Your task to perform on an android device: manage bookmarks in the chrome app Image 0: 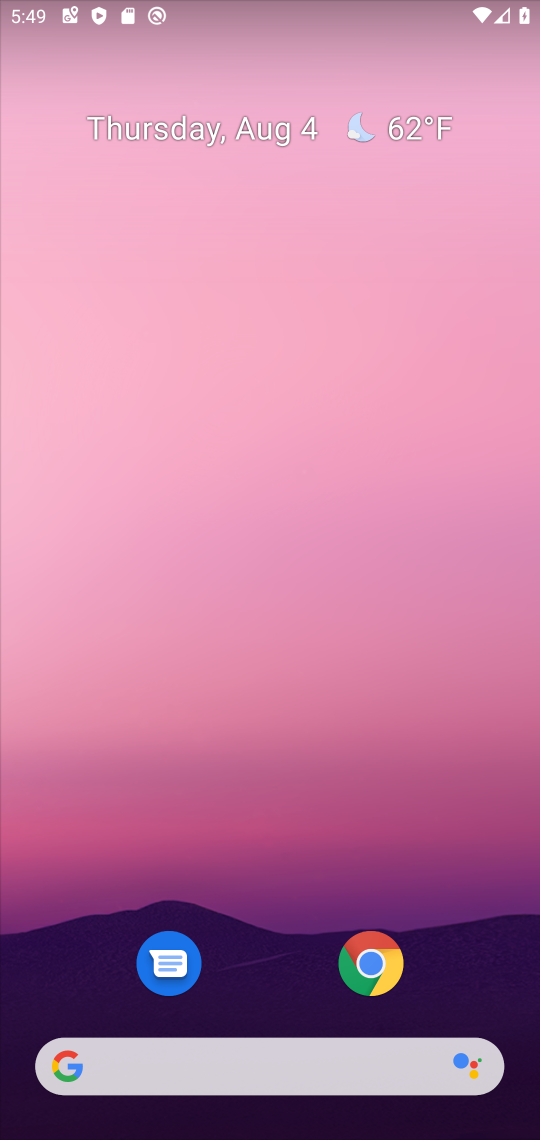
Step 0: click (372, 964)
Your task to perform on an android device: manage bookmarks in the chrome app Image 1: 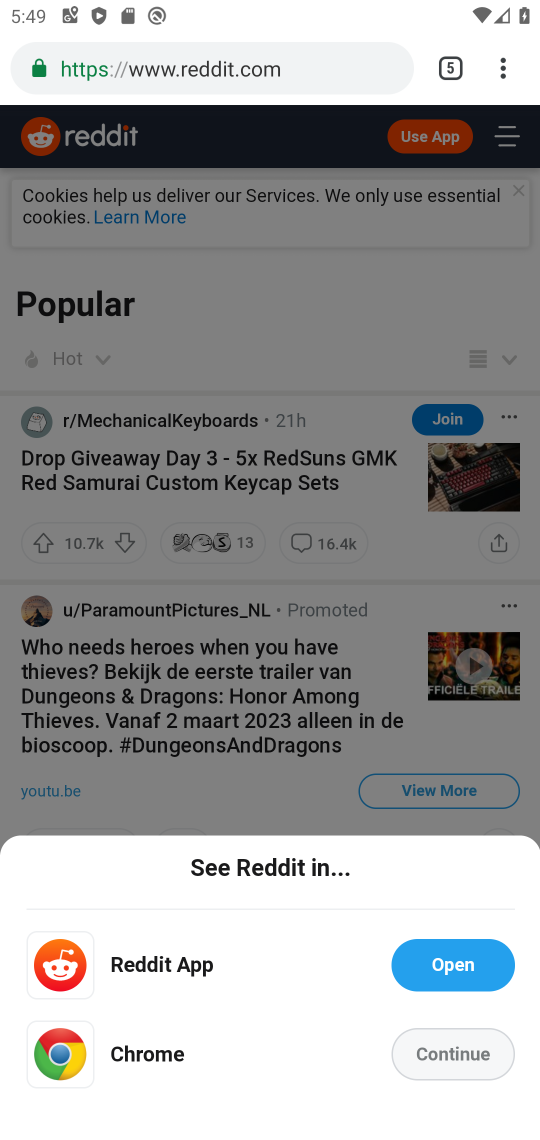
Step 1: click (510, 59)
Your task to perform on an android device: manage bookmarks in the chrome app Image 2: 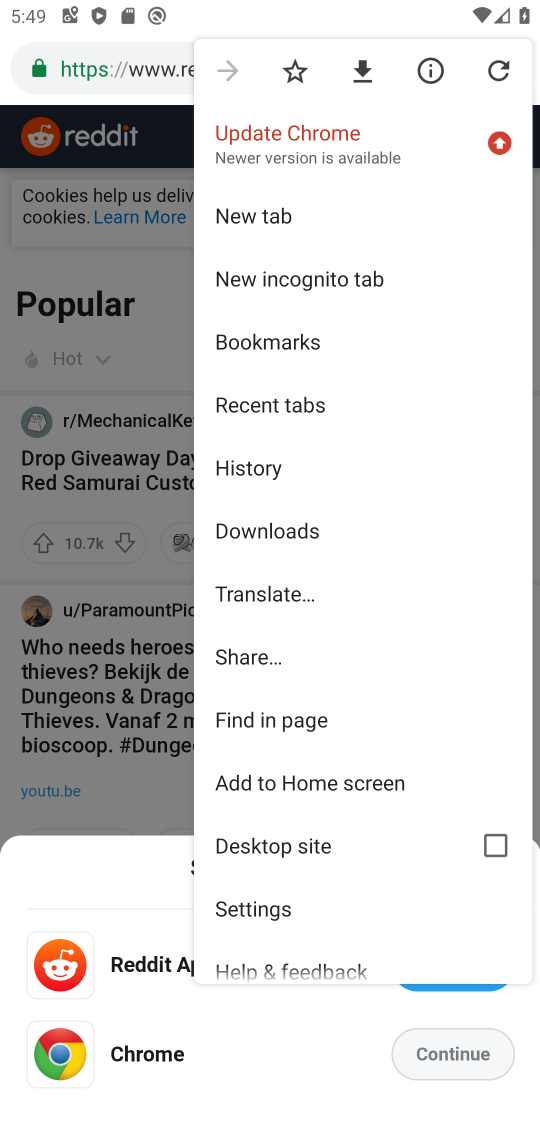
Step 2: click (267, 347)
Your task to perform on an android device: manage bookmarks in the chrome app Image 3: 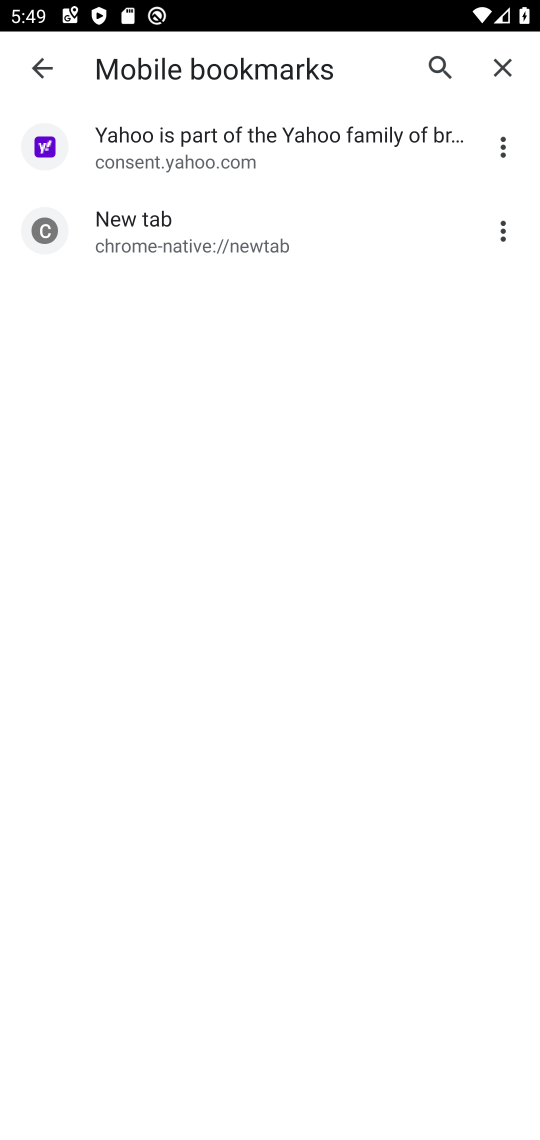
Step 3: click (512, 136)
Your task to perform on an android device: manage bookmarks in the chrome app Image 4: 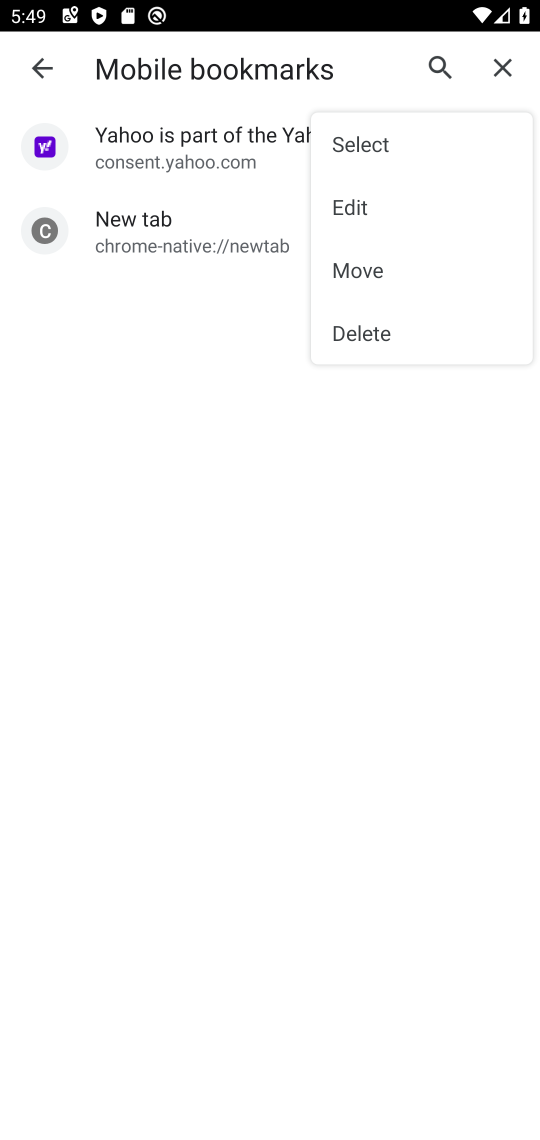
Step 4: click (365, 198)
Your task to perform on an android device: manage bookmarks in the chrome app Image 5: 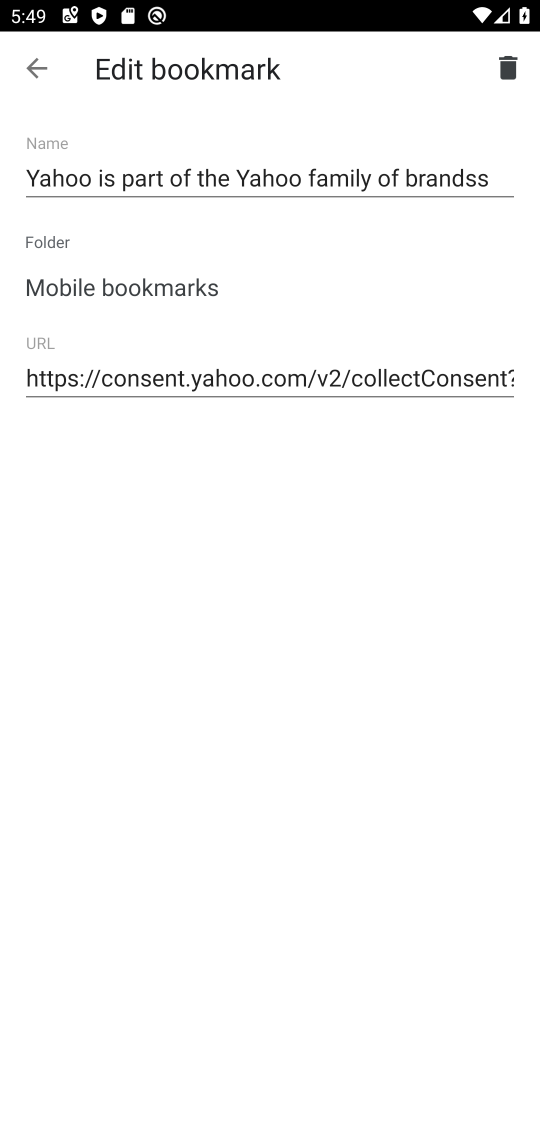
Step 5: task complete